Your task to perform on an android device: set the stopwatch Image 0: 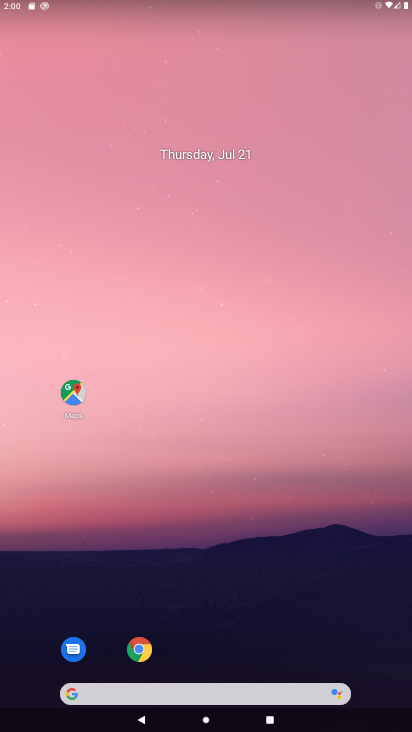
Step 0: drag from (275, 585) to (215, 37)
Your task to perform on an android device: set the stopwatch Image 1: 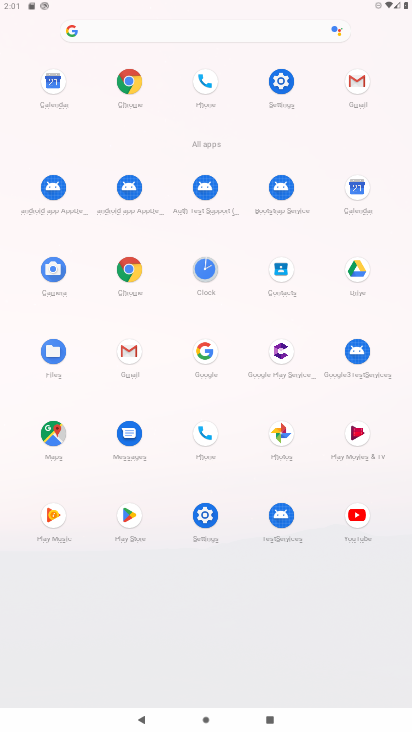
Step 1: click (193, 277)
Your task to perform on an android device: set the stopwatch Image 2: 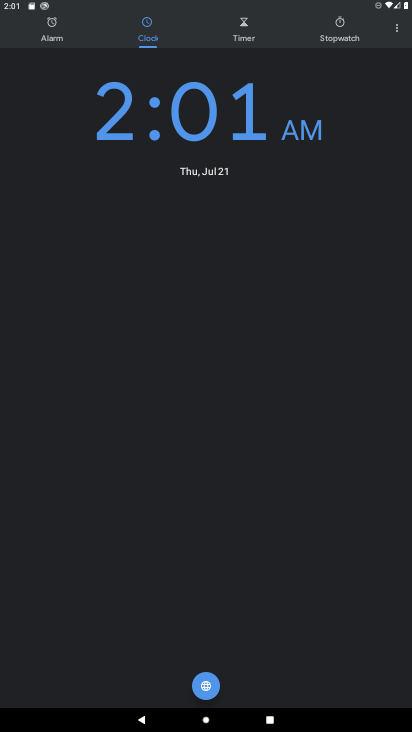
Step 2: click (327, 39)
Your task to perform on an android device: set the stopwatch Image 3: 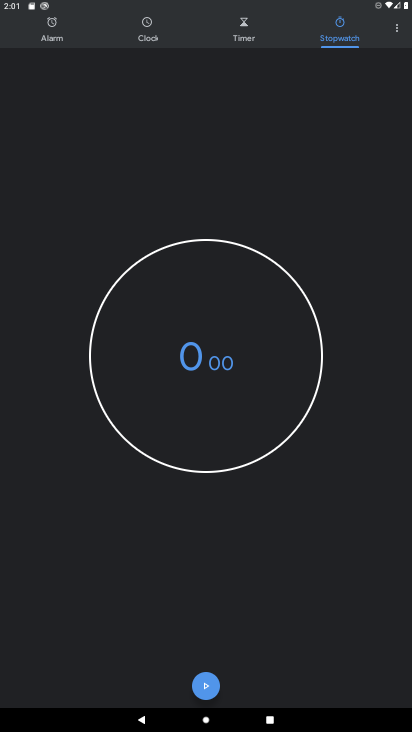
Step 3: click (209, 693)
Your task to perform on an android device: set the stopwatch Image 4: 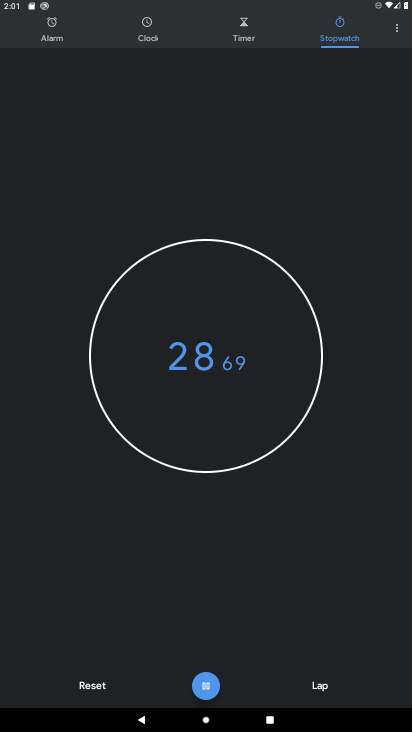
Step 4: task complete